Your task to perform on an android device: Open notification settings Image 0: 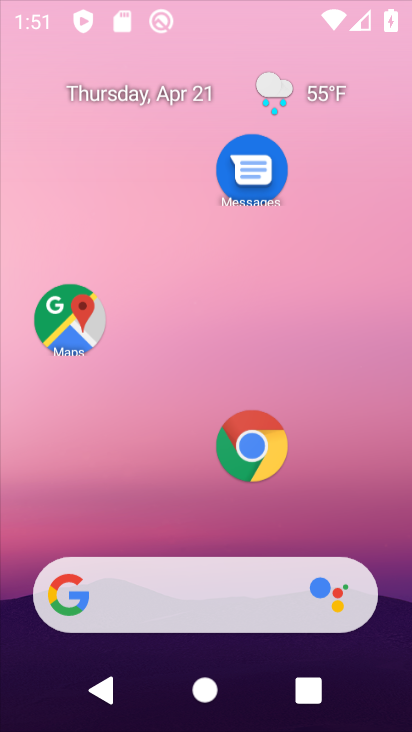
Step 0: drag from (336, 149) to (319, 179)
Your task to perform on an android device: Open notification settings Image 1: 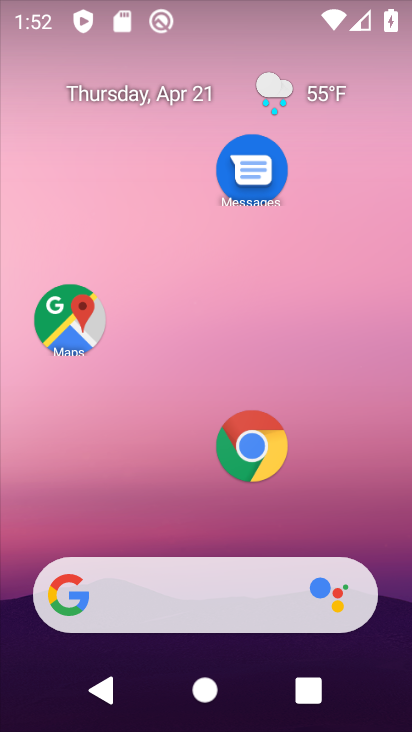
Step 1: drag from (170, 432) to (218, 14)
Your task to perform on an android device: Open notification settings Image 2: 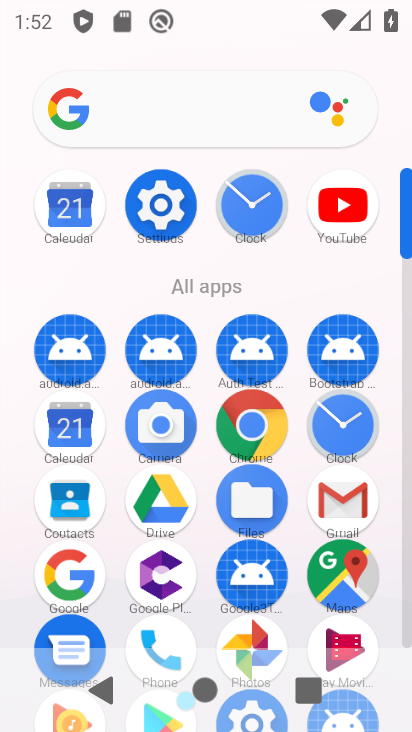
Step 2: click (163, 203)
Your task to perform on an android device: Open notification settings Image 3: 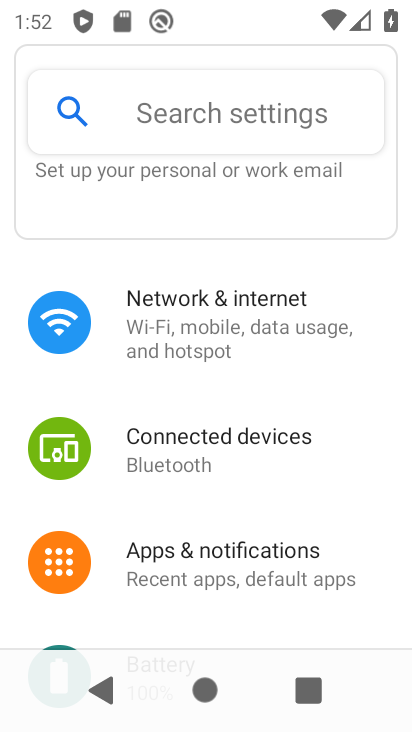
Step 3: drag from (211, 521) to (236, 366)
Your task to perform on an android device: Open notification settings Image 4: 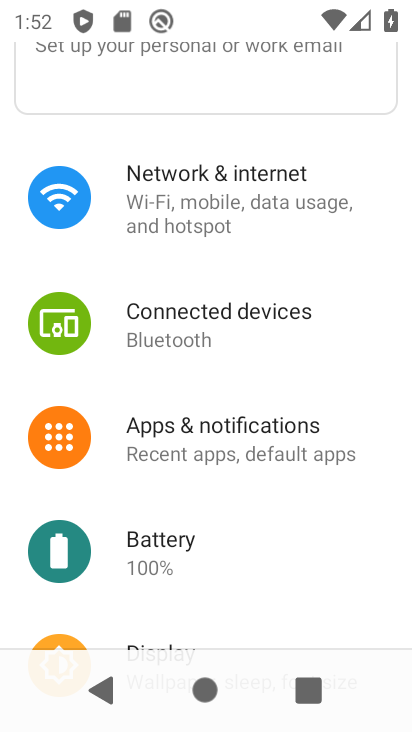
Step 4: click (201, 438)
Your task to perform on an android device: Open notification settings Image 5: 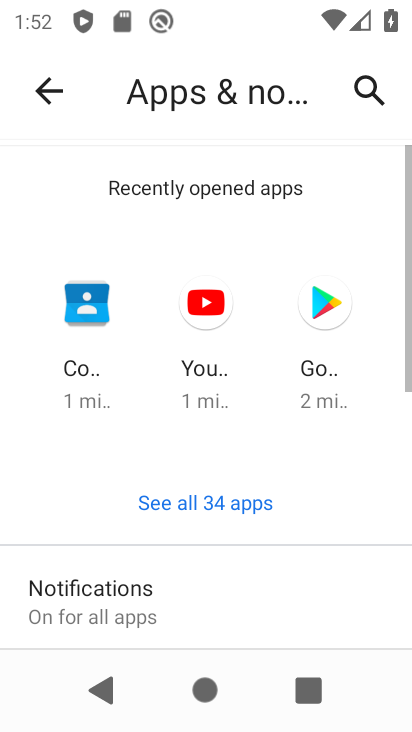
Step 5: drag from (171, 592) to (249, 371)
Your task to perform on an android device: Open notification settings Image 6: 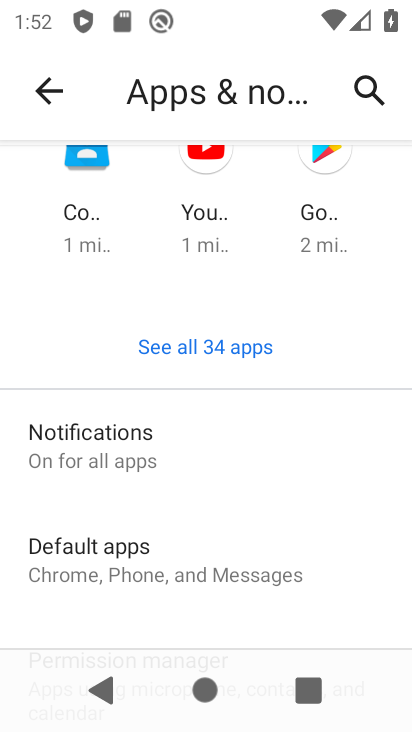
Step 6: click (86, 436)
Your task to perform on an android device: Open notification settings Image 7: 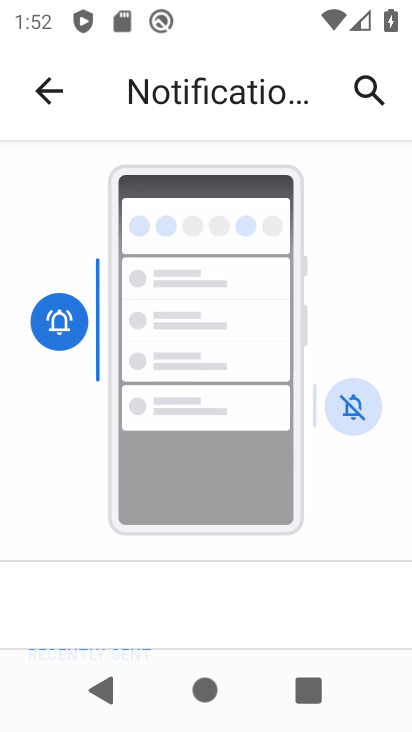
Step 7: task complete